Your task to perform on an android device: delete browsing data in the chrome app Image 0: 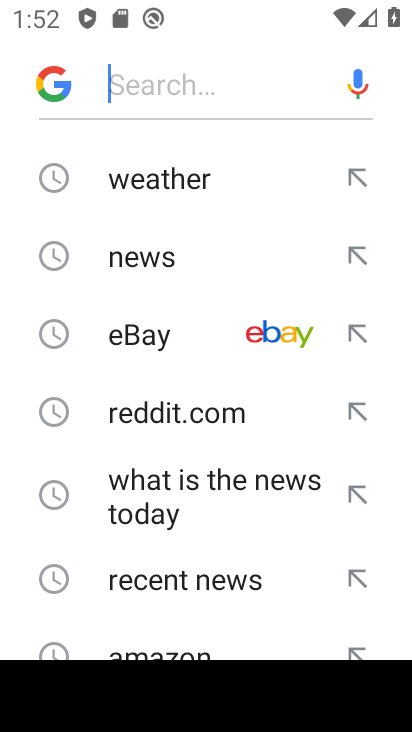
Step 0: press home button
Your task to perform on an android device: delete browsing data in the chrome app Image 1: 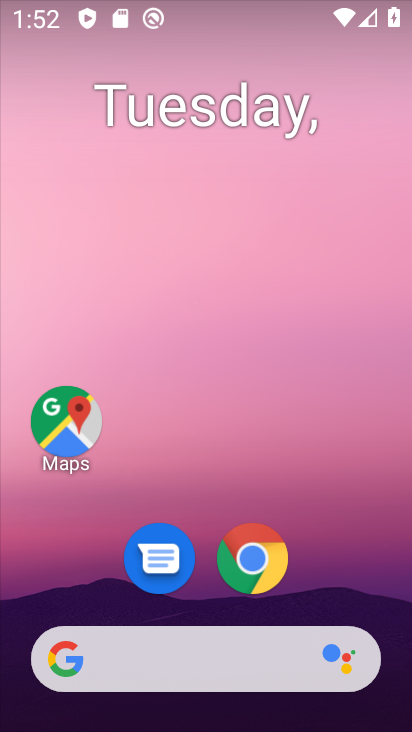
Step 1: click (247, 572)
Your task to perform on an android device: delete browsing data in the chrome app Image 2: 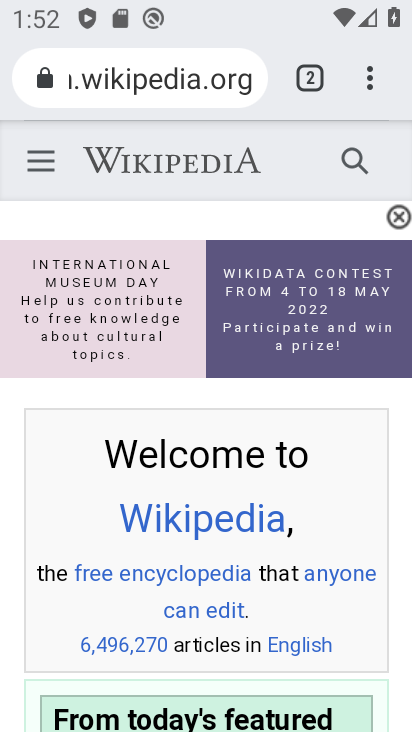
Step 2: drag from (367, 71) to (131, 447)
Your task to perform on an android device: delete browsing data in the chrome app Image 3: 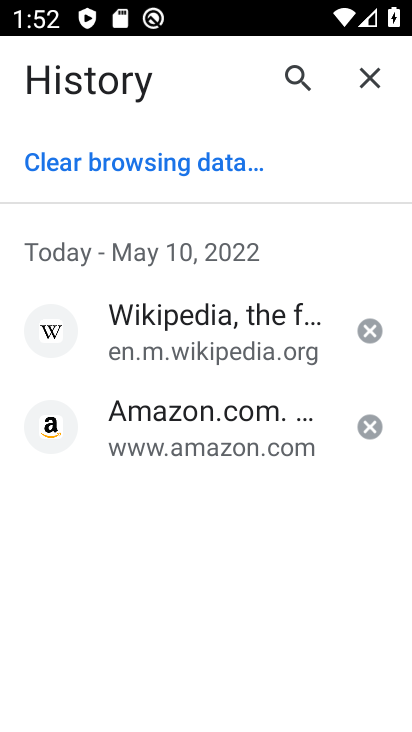
Step 3: click (153, 166)
Your task to perform on an android device: delete browsing data in the chrome app Image 4: 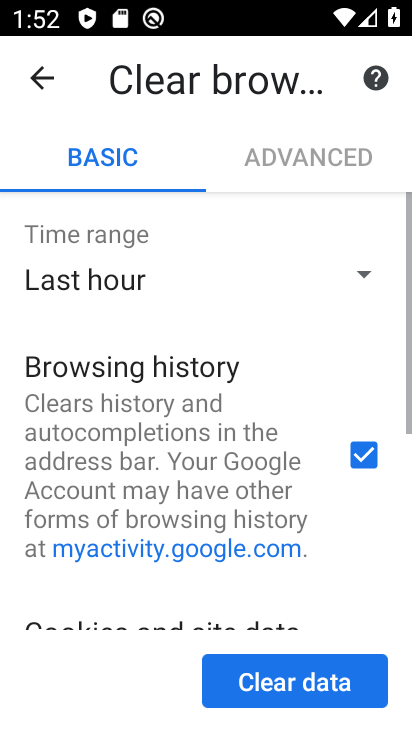
Step 4: click (324, 682)
Your task to perform on an android device: delete browsing data in the chrome app Image 5: 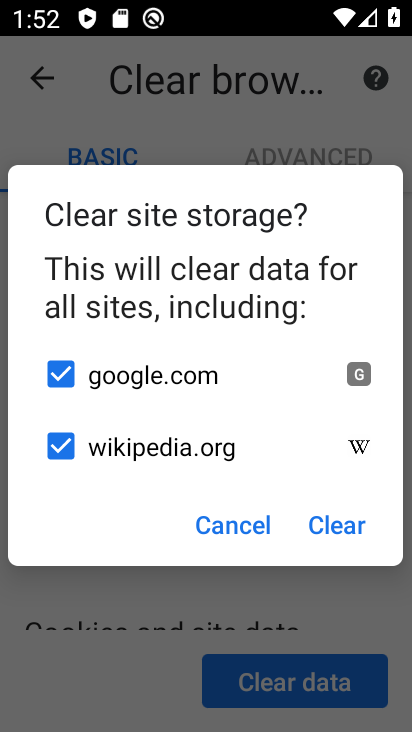
Step 5: click (342, 534)
Your task to perform on an android device: delete browsing data in the chrome app Image 6: 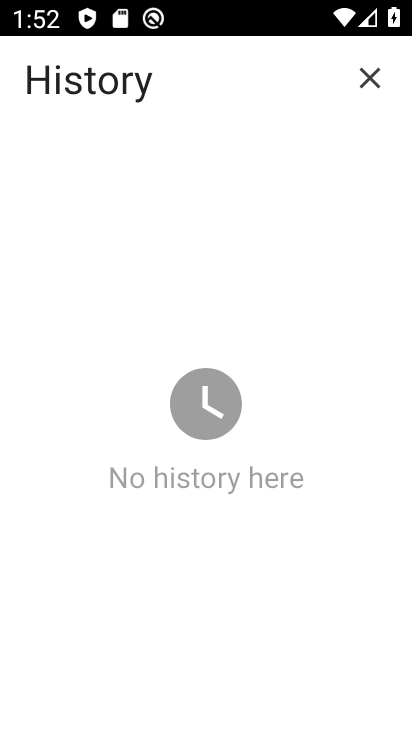
Step 6: task complete